Your task to perform on an android device: Open Maps and search for coffee Image 0: 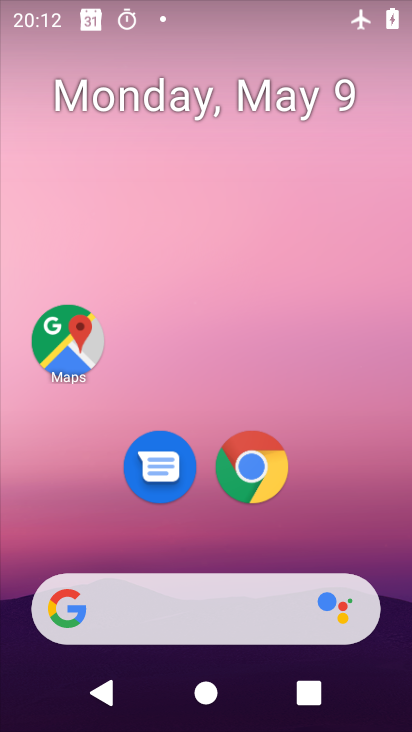
Step 0: click (57, 345)
Your task to perform on an android device: Open Maps and search for coffee Image 1: 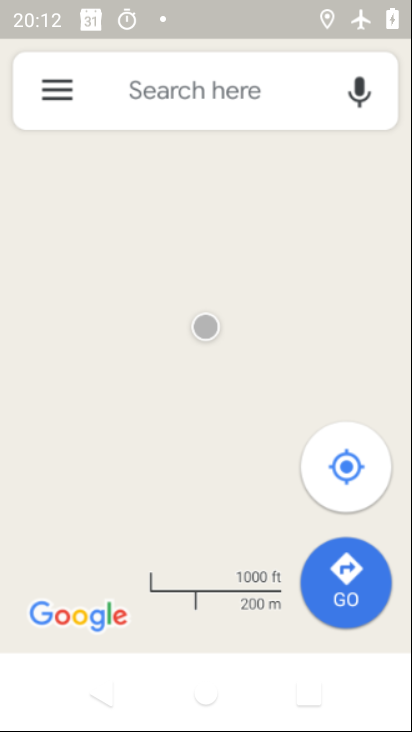
Step 1: click (220, 97)
Your task to perform on an android device: Open Maps and search for coffee Image 2: 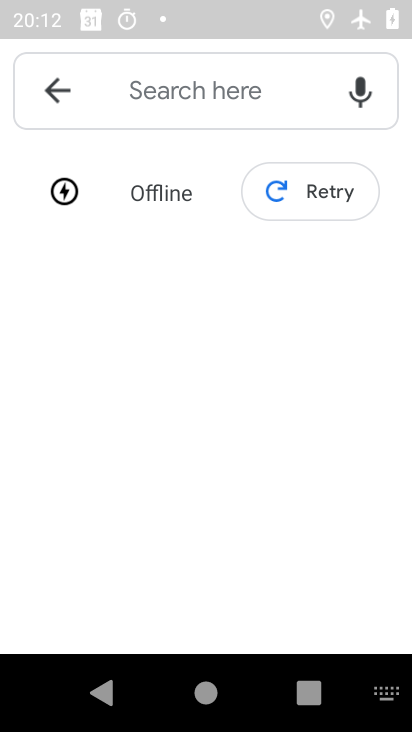
Step 2: type "coffee"
Your task to perform on an android device: Open Maps and search for coffee Image 3: 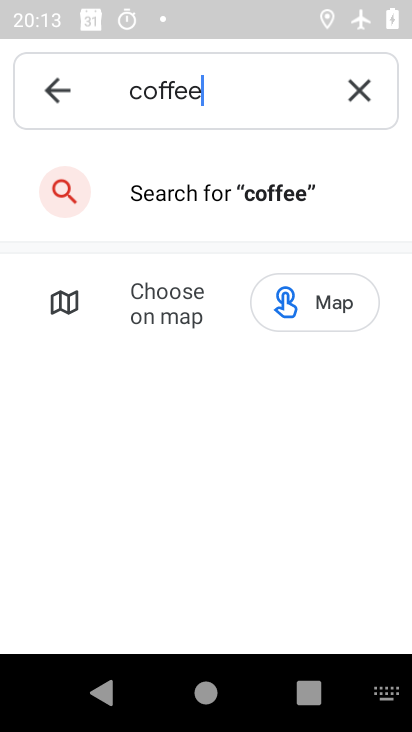
Step 3: click (280, 196)
Your task to perform on an android device: Open Maps and search for coffee Image 4: 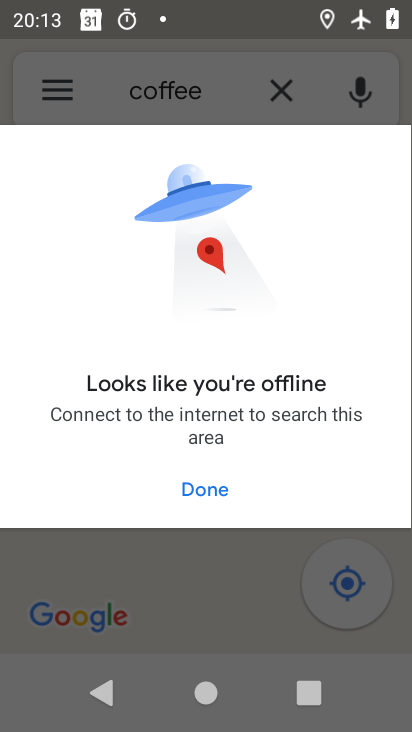
Step 4: task complete